Your task to perform on an android device: Go to settings Image 0: 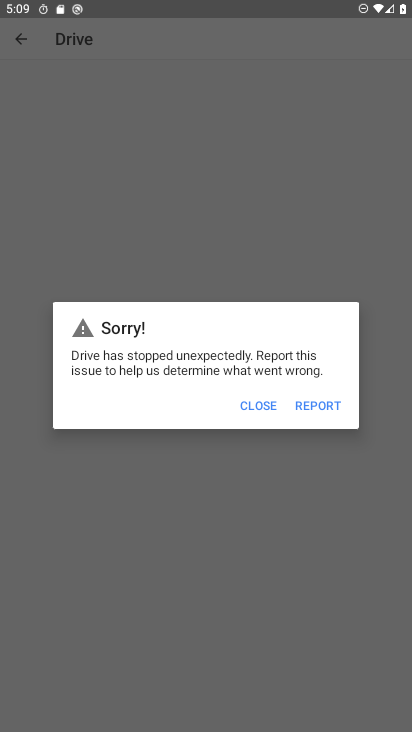
Step 0: press home button
Your task to perform on an android device: Go to settings Image 1: 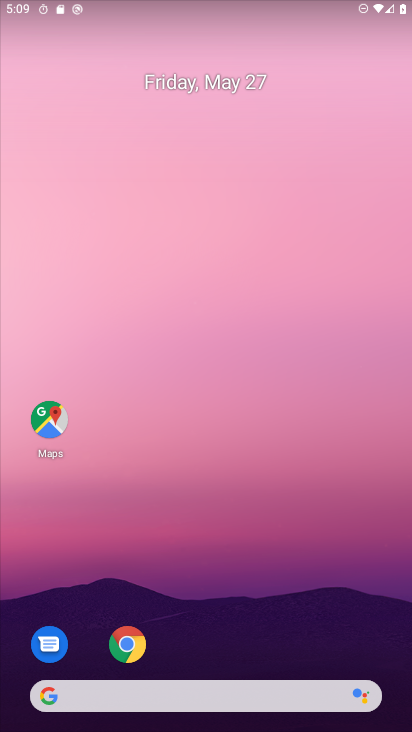
Step 1: drag from (211, 445) to (214, 33)
Your task to perform on an android device: Go to settings Image 2: 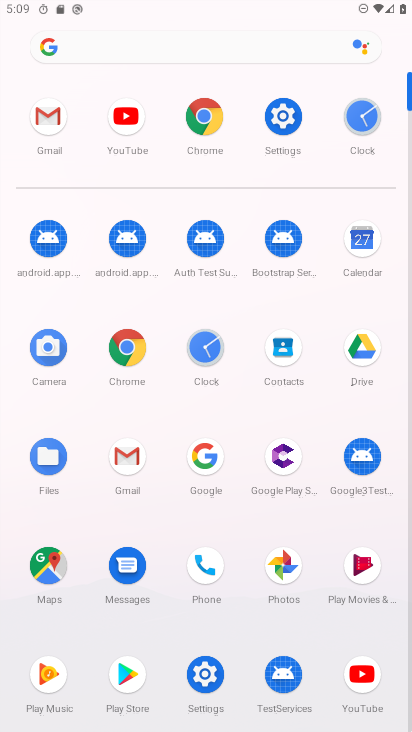
Step 2: drag from (197, 651) to (273, 126)
Your task to perform on an android device: Go to settings Image 3: 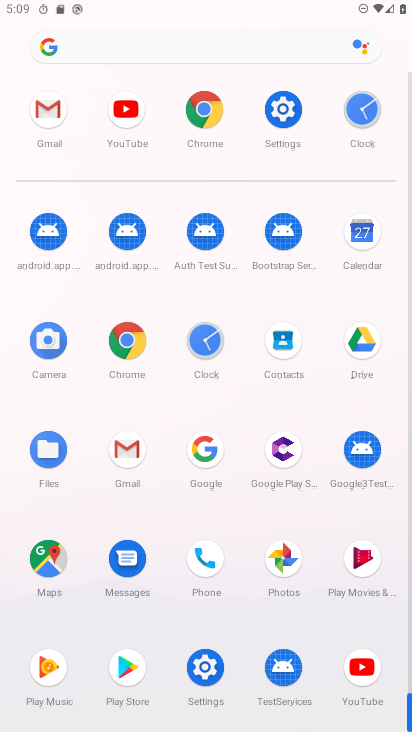
Step 3: click (273, 126)
Your task to perform on an android device: Go to settings Image 4: 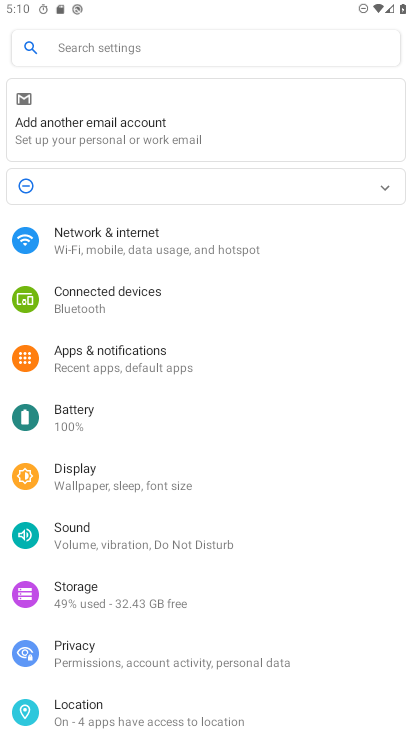
Step 4: task complete